Your task to perform on an android device: remove spam from my inbox in the gmail app Image 0: 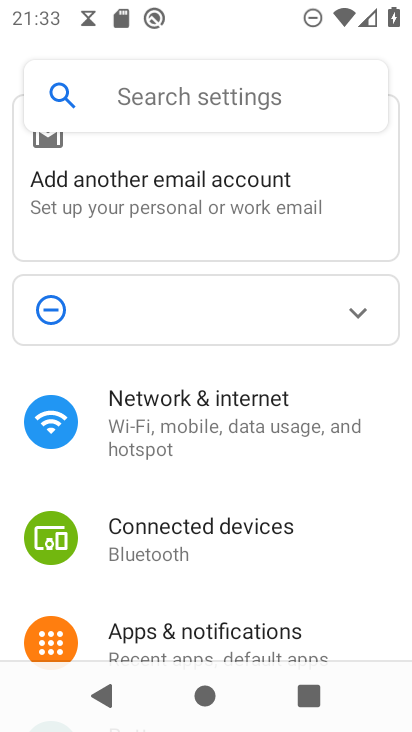
Step 0: press home button
Your task to perform on an android device: remove spam from my inbox in the gmail app Image 1: 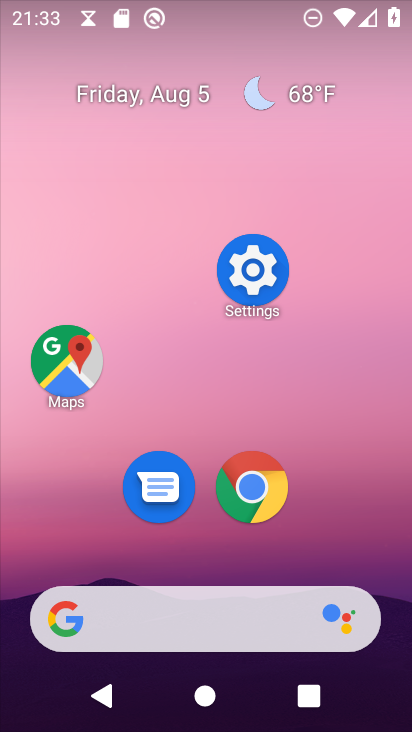
Step 1: drag from (224, 633) to (363, 65)
Your task to perform on an android device: remove spam from my inbox in the gmail app Image 2: 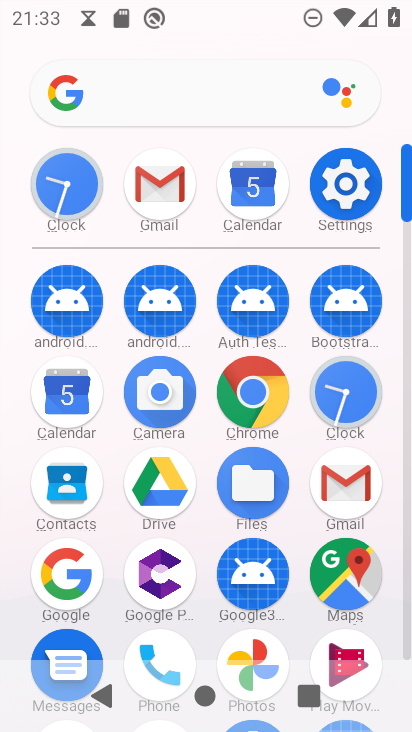
Step 2: click (166, 188)
Your task to perform on an android device: remove spam from my inbox in the gmail app Image 3: 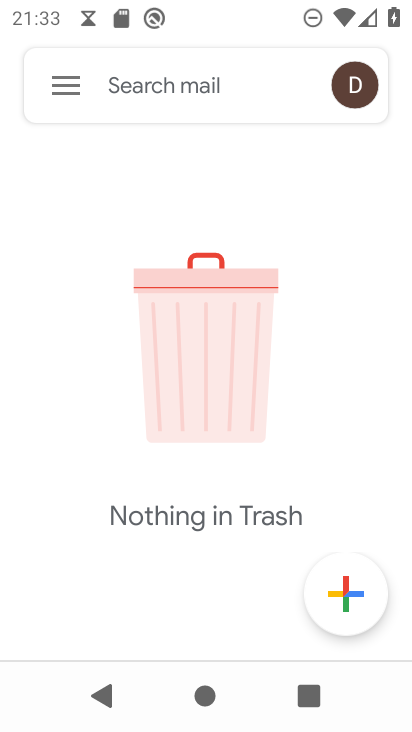
Step 3: click (68, 79)
Your task to perform on an android device: remove spam from my inbox in the gmail app Image 4: 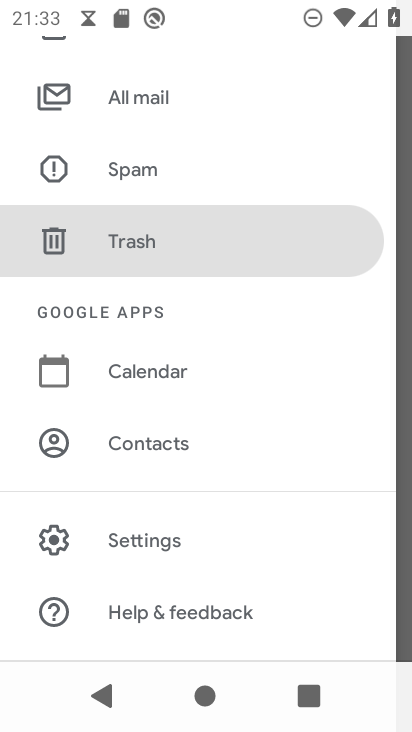
Step 4: click (146, 170)
Your task to perform on an android device: remove spam from my inbox in the gmail app Image 5: 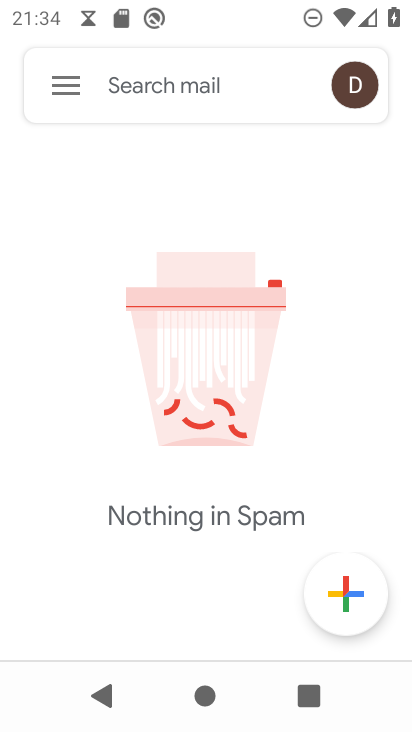
Step 5: task complete